Your task to perform on an android device: Show me popular games on the Play Store Image 0: 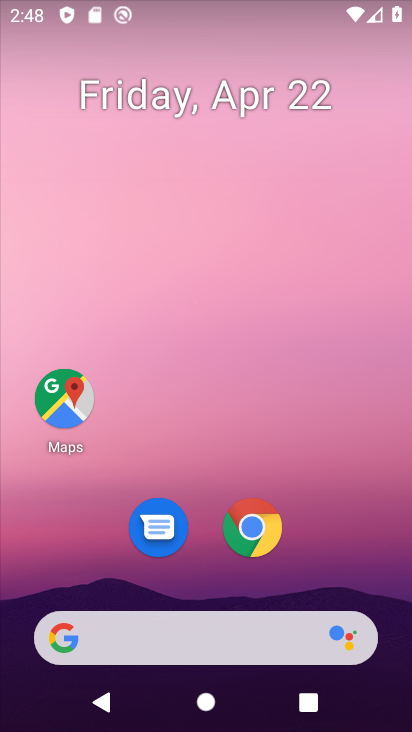
Step 0: drag from (383, 613) to (267, 128)
Your task to perform on an android device: Show me popular games on the Play Store Image 1: 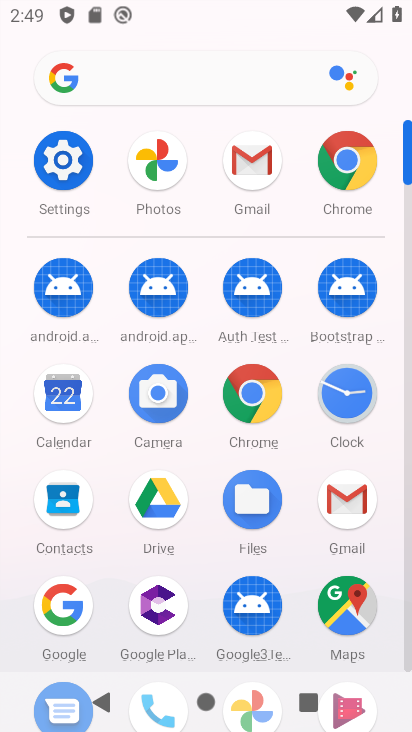
Step 1: click (408, 668)
Your task to perform on an android device: Show me popular games on the Play Store Image 2: 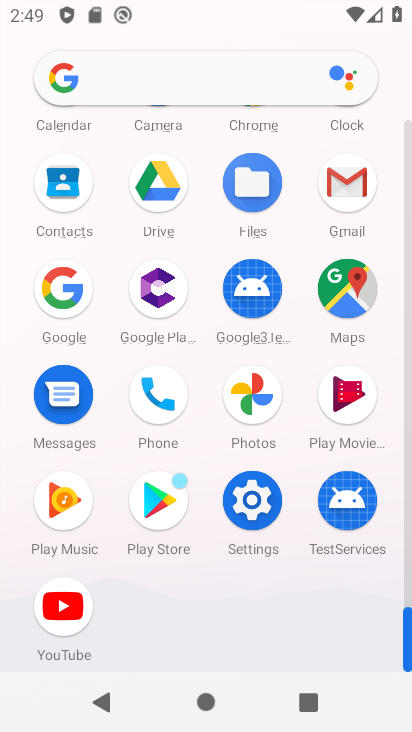
Step 2: click (170, 510)
Your task to perform on an android device: Show me popular games on the Play Store Image 3: 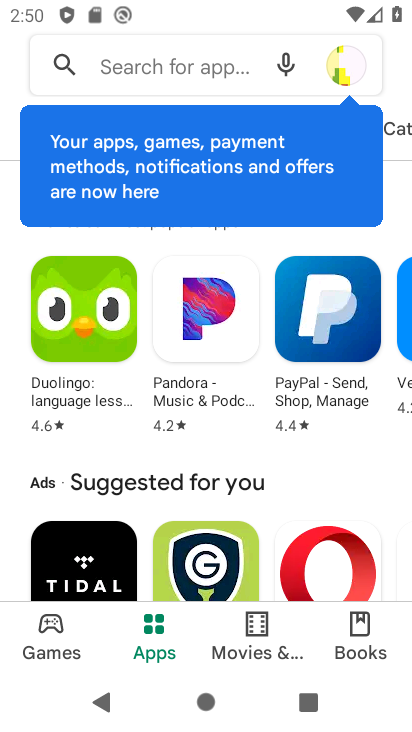
Step 3: click (52, 637)
Your task to perform on an android device: Show me popular games on the Play Store Image 4: 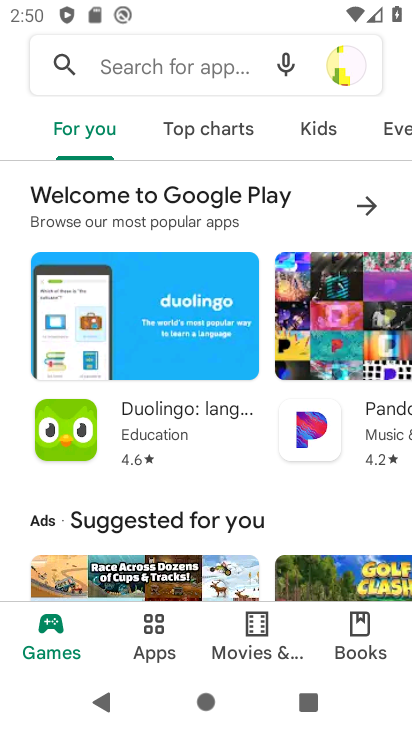
Step 4: task complete